Your task to perform on an android device: change your default location settings in chrome Image 0: 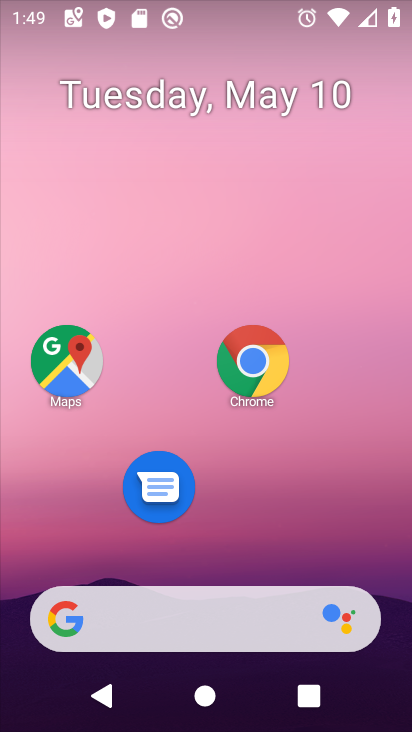
Step 0: click (227, 368)
Your task to perform on an android device: change your default location settings in chrome Image 1: 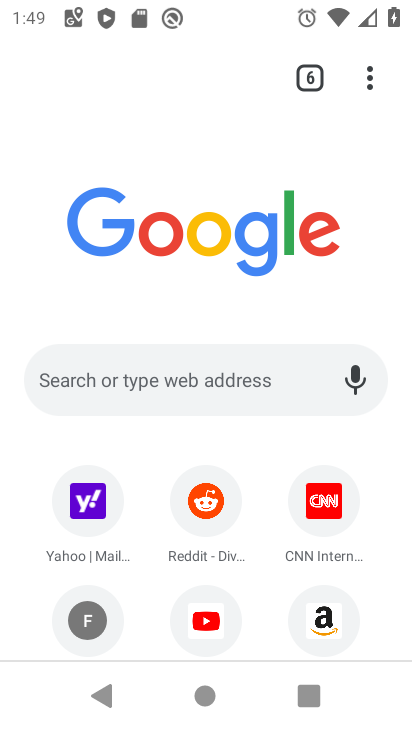
Step 1: click (361, 88)
Your task to perform on an android device: change your default location settings in chrome Image 2: 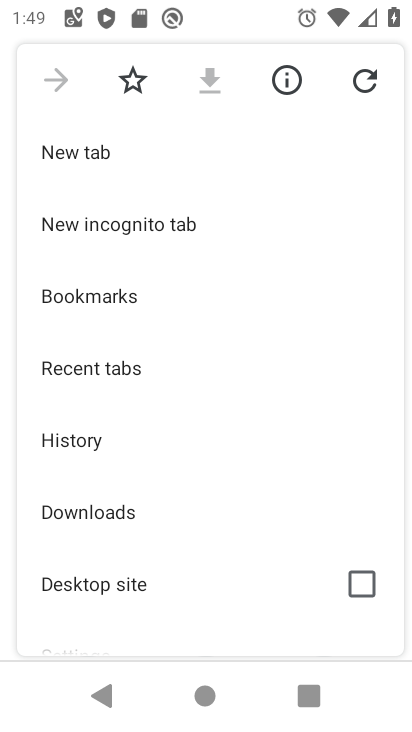
Step 2: drag from (156, 548) to (135, 223)
Your task to perform on an android device: change your default location settings in chrome Image 3: 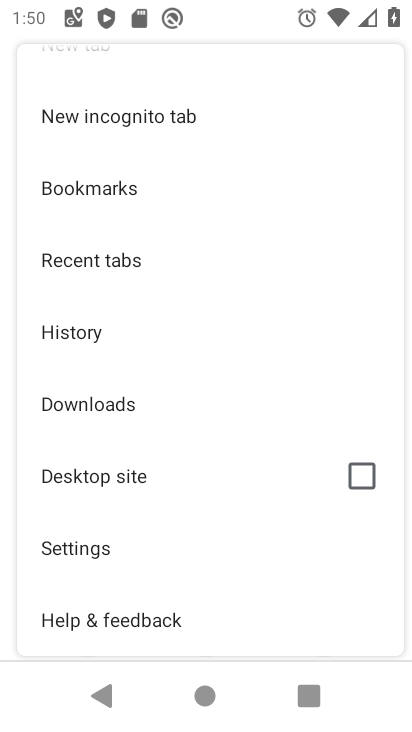
Step 3: click (181, 567)
Your task to perform on an android device: change your default location settings in chrome Image 4: 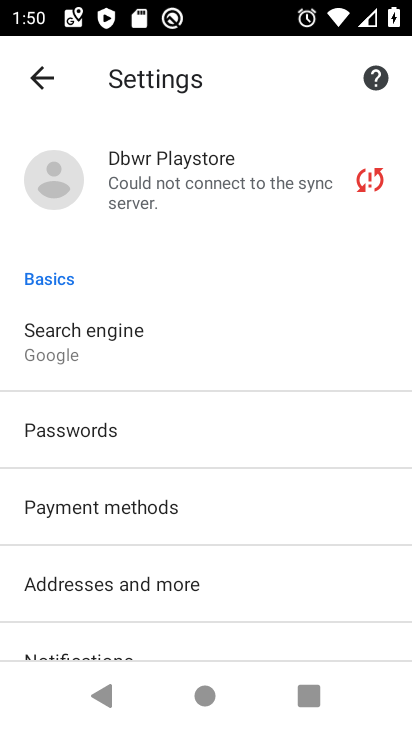
Step 4: drag from (181, 567) to (160, 437)
Your task to perform on an android device: change your default location settings in chrome Image 5: 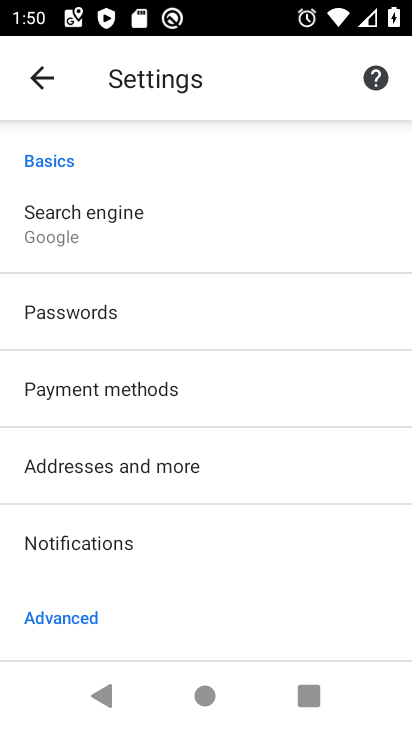
Step 5: click (165, 472)
Your task to perform on an android device: change your default location settings in chrome Image 6: 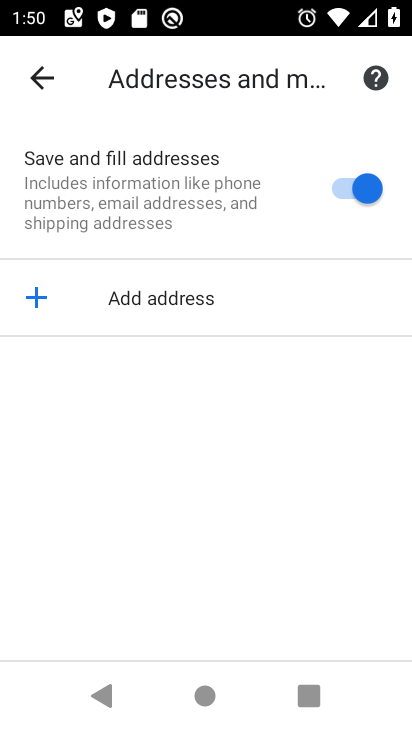
Step 6: task complete